Your task to perform on an android device: add a label to a message in the gmail app Image 0: 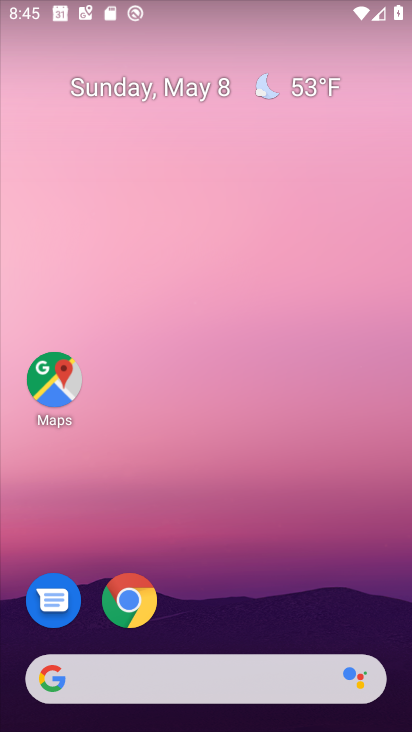
Step 0: drag from (239, 671) to (293, 192)
Your task to perform on an android device: add a label to a message in the gmail app Image 1: 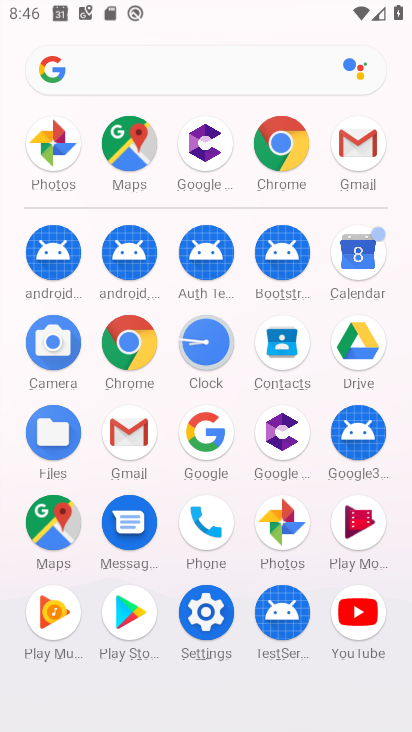
Step 1: click (140, 437)
Your task to perform on an android device: add a label to a message in the gmail app Image 2: 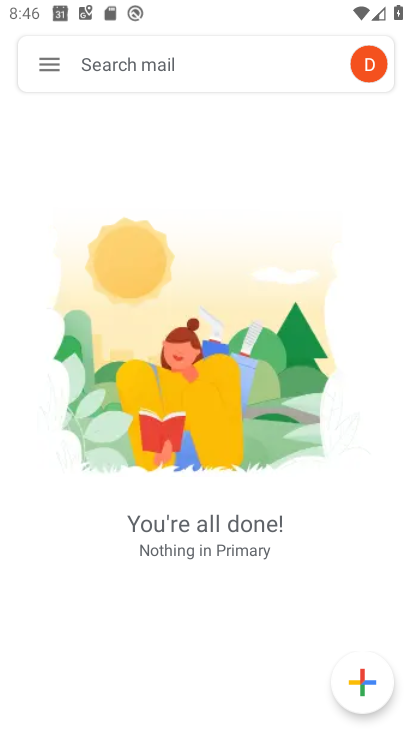
Step 2: click (42, 67)
Your task to perform on an android device: add a label to a message in the gmail app Image 3: 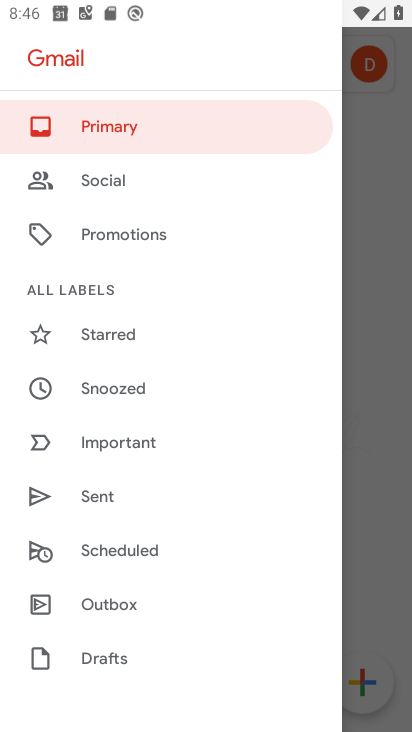
Step 3: drag from (189, 472) to (175, 244)
Your task to perform on an android device: add a label to a message in the gmail app Image 4: 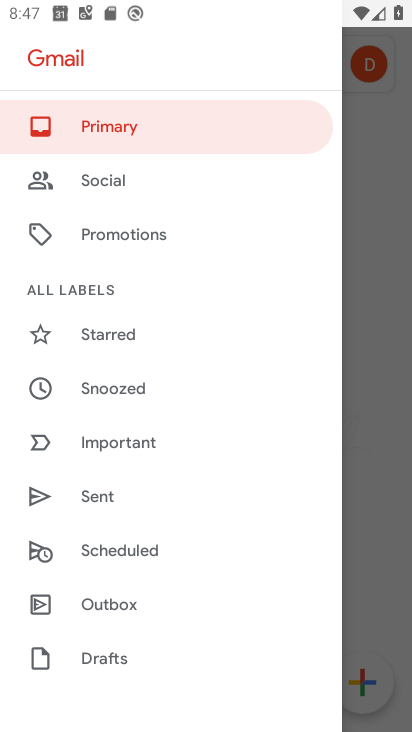
Step 4: drag from (176, 598) to (246, 222)
Your task to perform on an android device: add a label to a message in the gmail app Image 5: 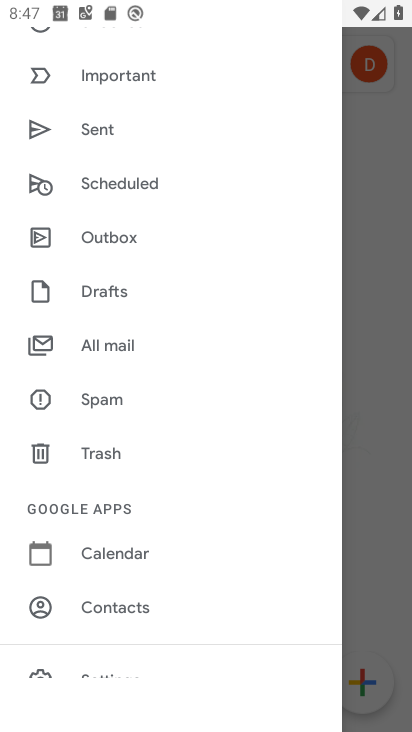
Step 5: click (143, 341)
Your task to perform on an android device: add a label to a message in the gmail app Image 6: 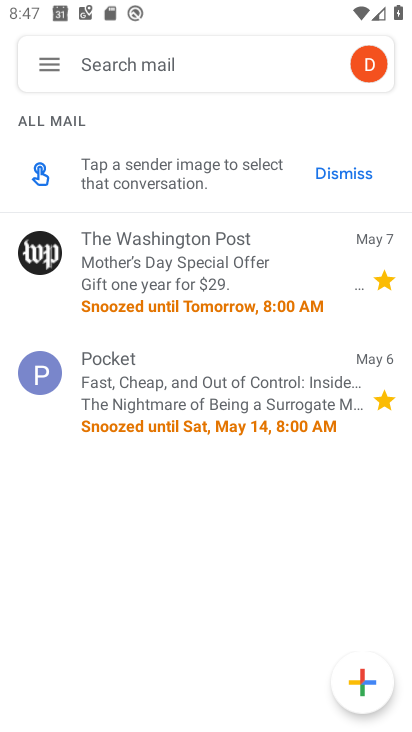
Step 6: click (144, 342)
Your task to perform on an android device: add a label to a message in the gmail app Image 7: 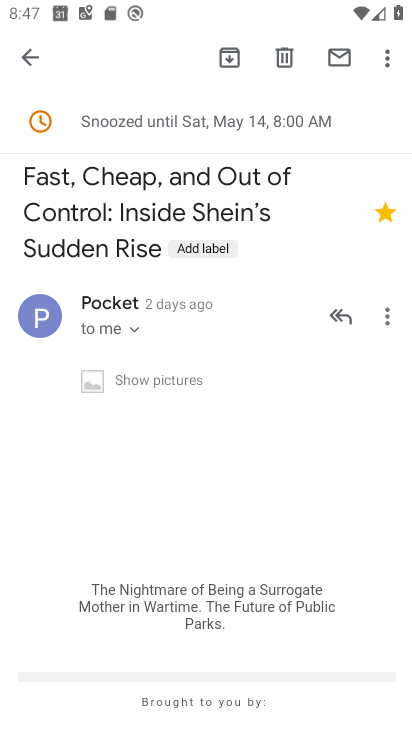
Step 7: click (397, 63)
Your task to perform on an android device: add a label to a message in the gmail app Image 8: 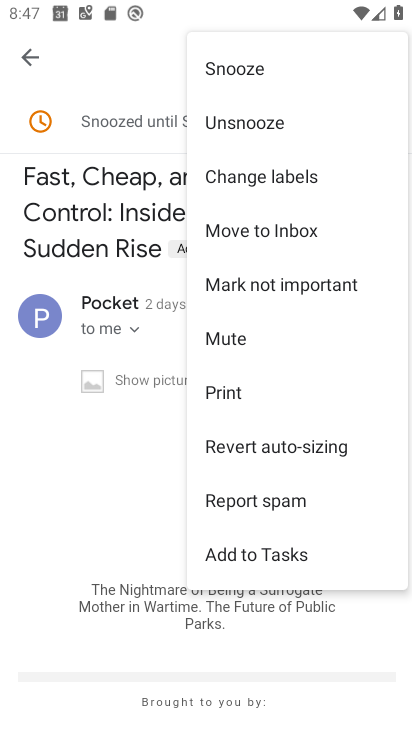
Step 8: click (278, 189)
Your task to perform on an android device: add a label to a message in the gmail app Image 9: 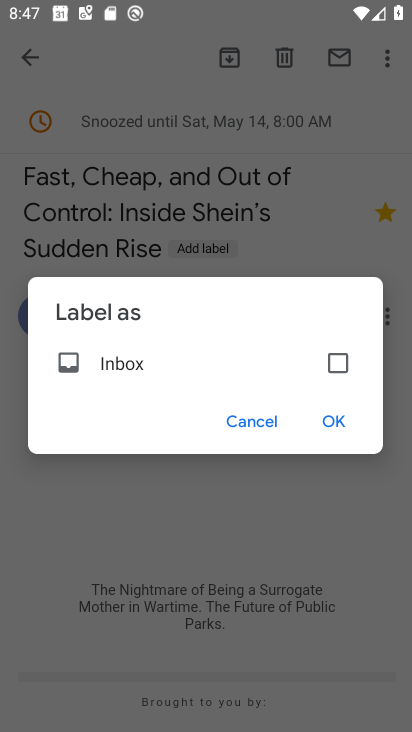
Step 9: click (326, 344)
Your task to perform on an android device: add a label to a message in the gmail app Image 10: 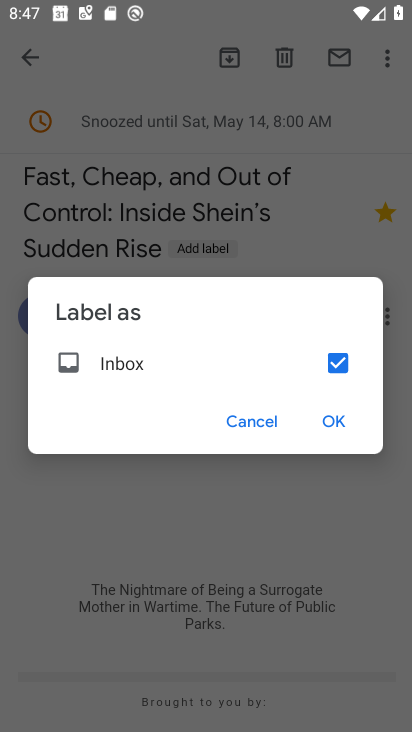
Step 10: click (337, 428)
Your task to perform on an android device: add a label to a message in the gmail app Image 11: 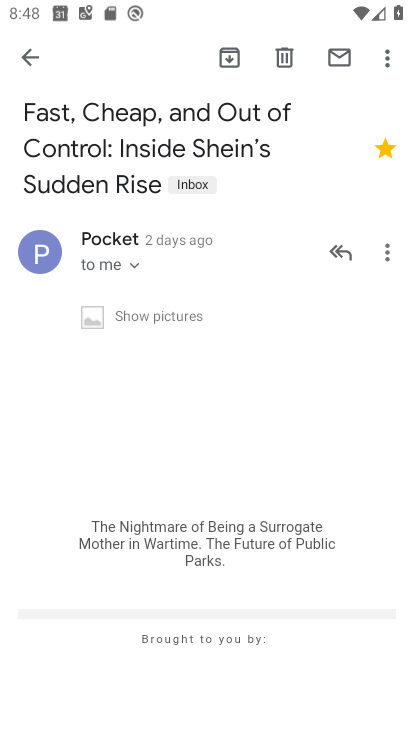
Step 11: task complete